Your task to perform on an android device: set an alarm Image 0: 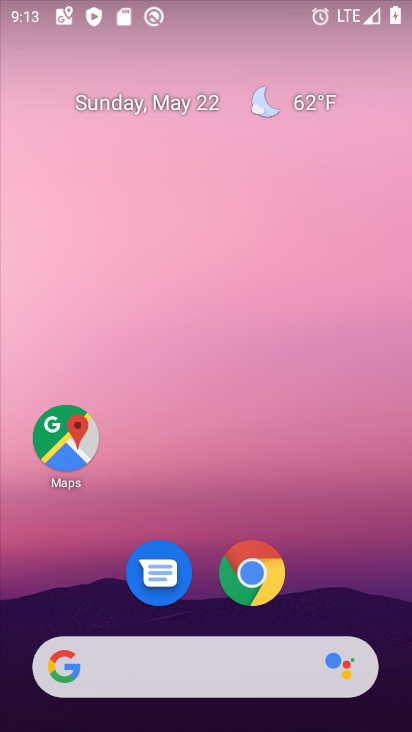
Step 0: drag from (344, 595) to (321, 1)
Your task to perform on an android device: set an alarm Image 1: 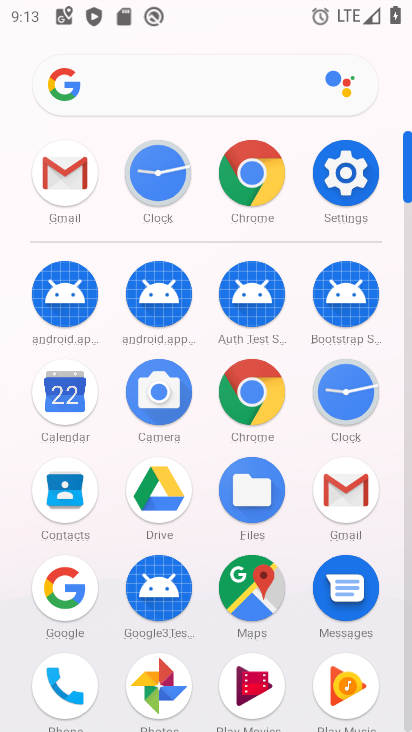
Step 1: click (331, 415)
Your task to perform on an android device: set an alarm Image 2: 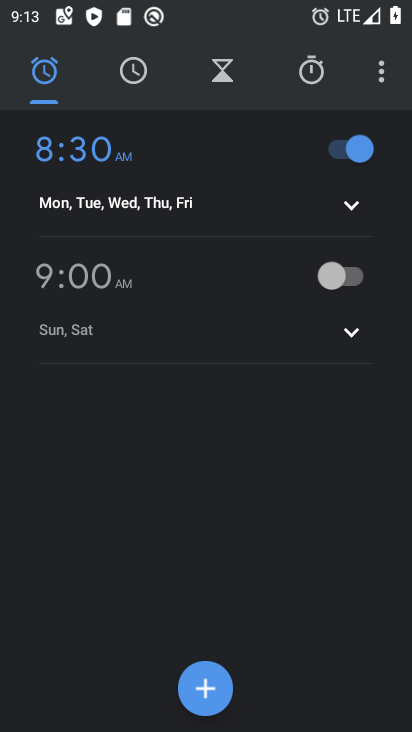
Step 2: task complete